Your task to perform on an android device: Open my contact list Image 0: 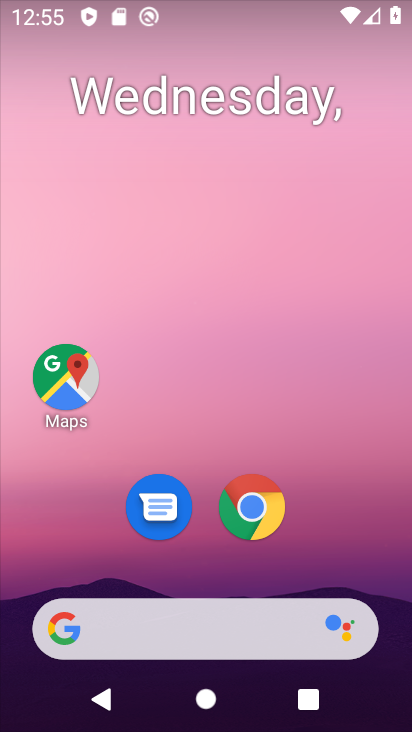
Step 0: drag from (332, 503) to (290, 117)
Your task to perform on an android device: Open my contact list Image 1: 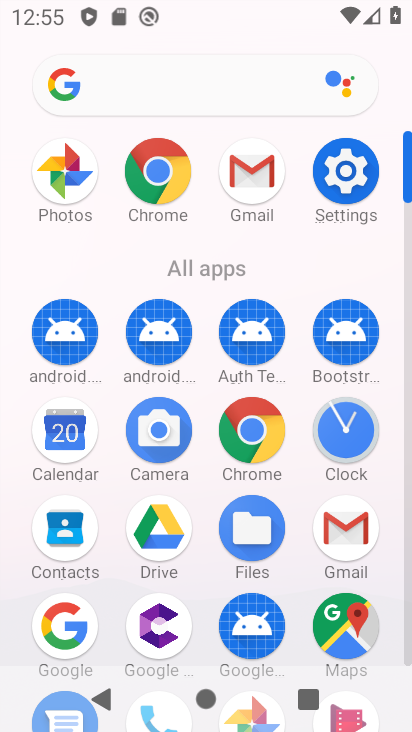
Step 1: click (86, 530)
Your task to perform on an android device: Open my contact list Image 2: 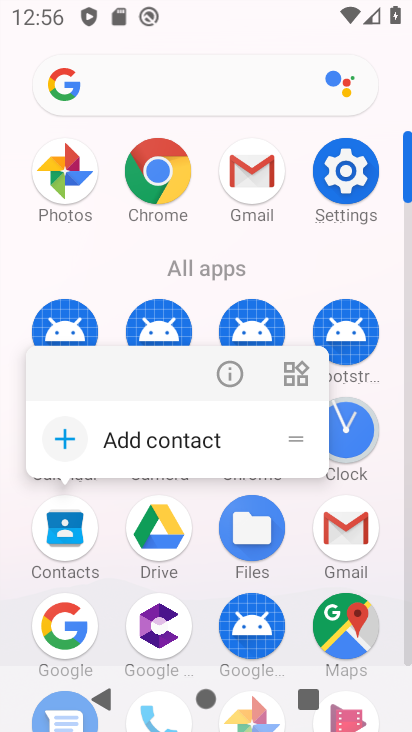
Step 2: click (41, 521)
Your task to perform on an android device: Open my contact list Image 3: 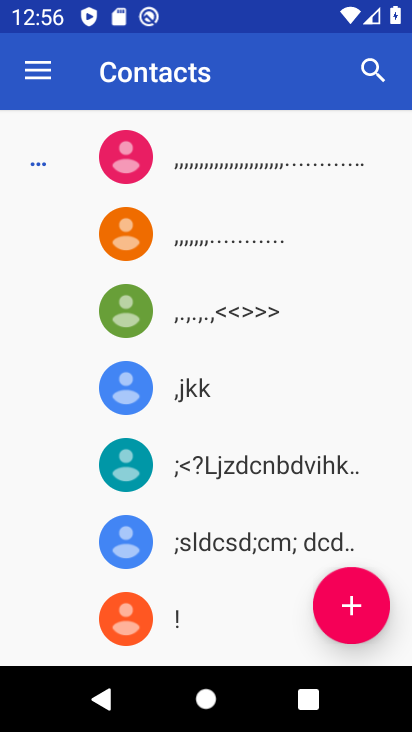
Step 3: task complete